Your task to perform on an android device: check android version Image 0: 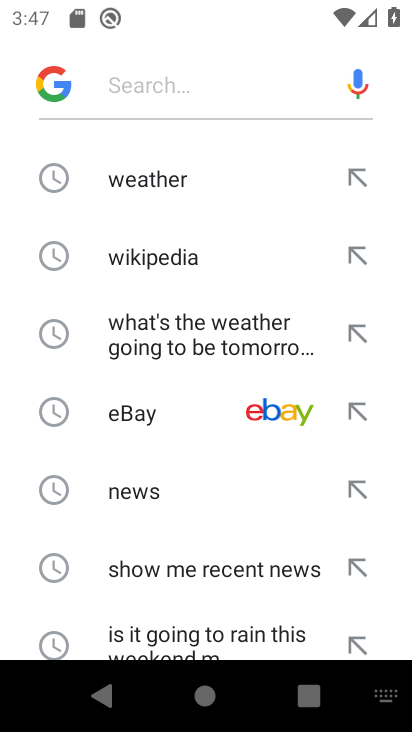
Step 0: press back button
Your task to perform on an android device: check android version Image 1: 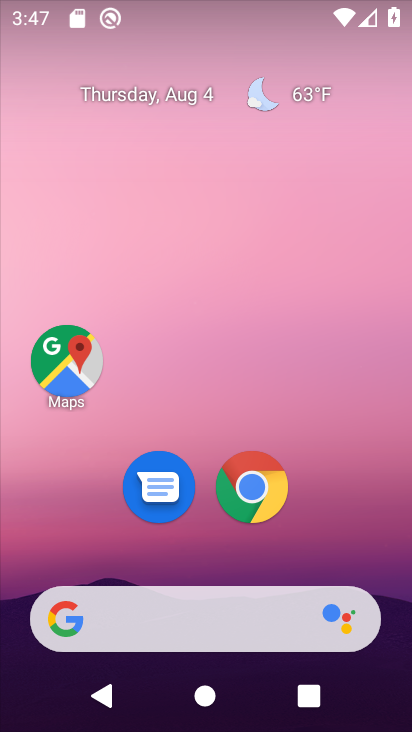
Step 1: drag from (196, 535) to (285, 15)
Your task to perform on an android device: check android version Image 2: 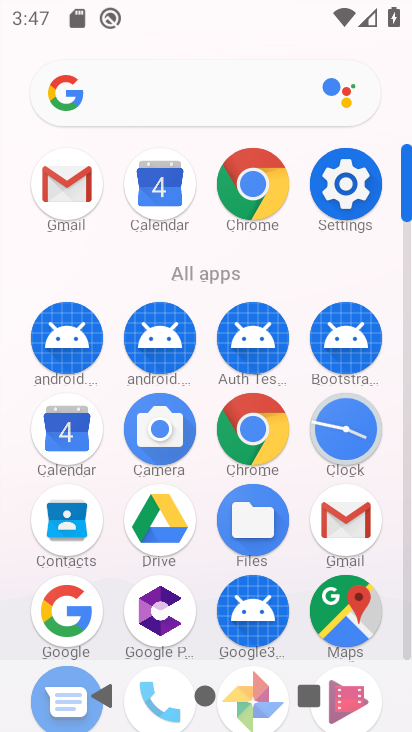
Step 2: click (354, 189)
Your task to perform on an android device: check android version Image 3: 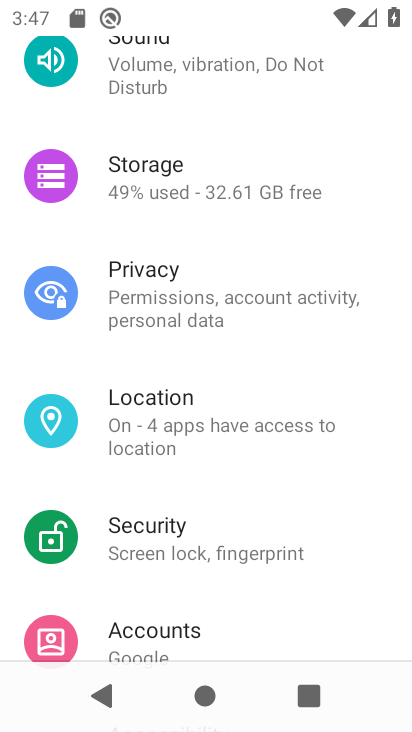
Step 3: drag from (161, 600) to (275, 12)
Your task to perform on an android device: check android version Image 4: 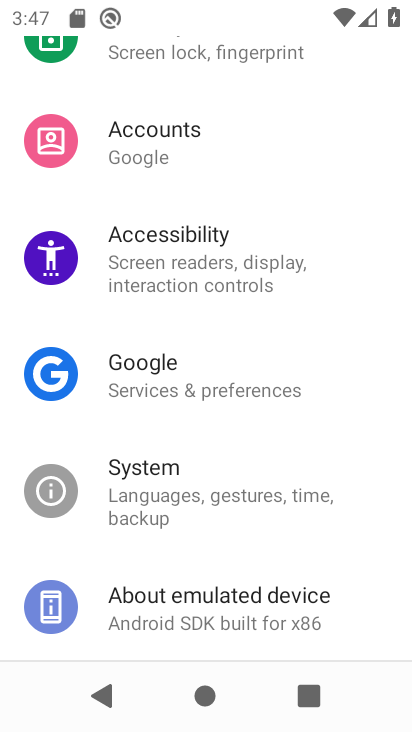
Step 4: drag from (148, 602) to (287, 71)
Your task to perform on an android device: check android version Image 5: 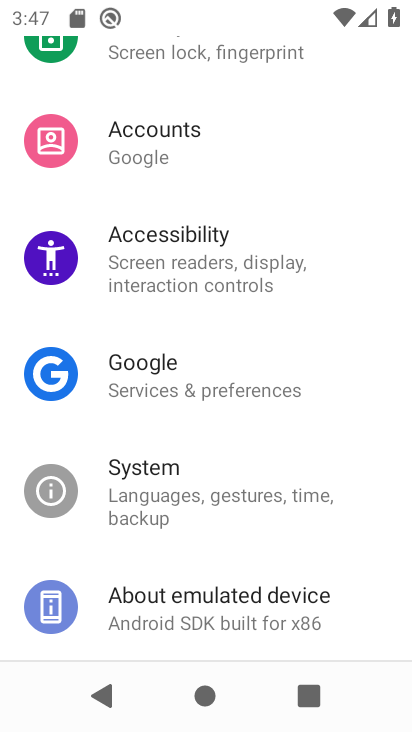
Step 5: drag from (172, 573) to (247, 6)
Your task to perform on an android device: check android version Image 6: 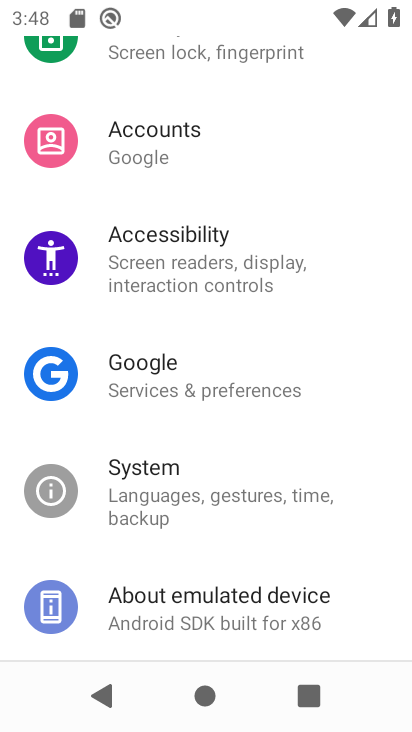
Step 6: click (204, 613)
Your task to perform on an android device: check android version Image 7: 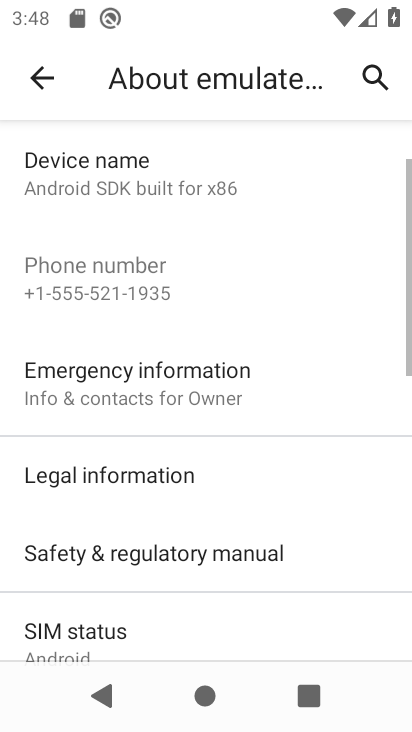
Step 7: drag from (193, 635) to (272, 87)
Your task to perform on an android device: check android version Image 8: 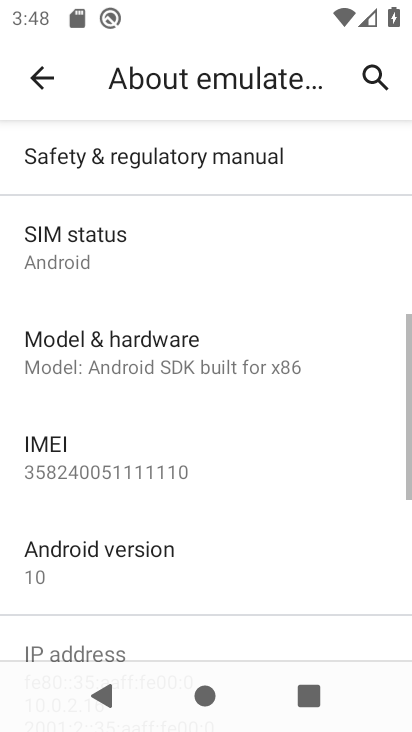
Step 8: click (72, 557)
Your task to perform on an android device: check android version Image 9: 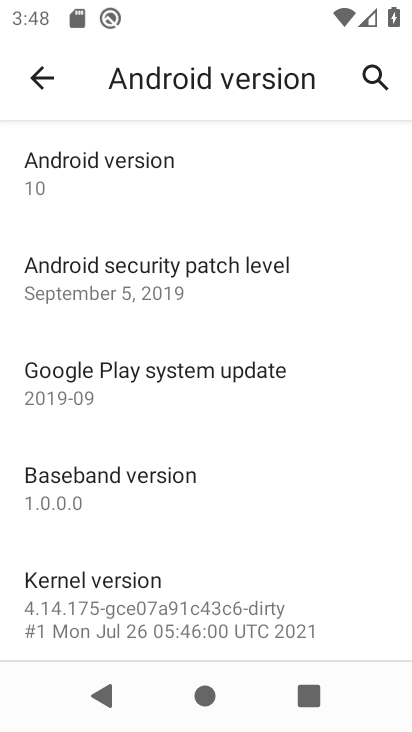
Step 9: task complete